Your task to perform on an android device: read, delete, or share a saved page in the chrome app Image 0: 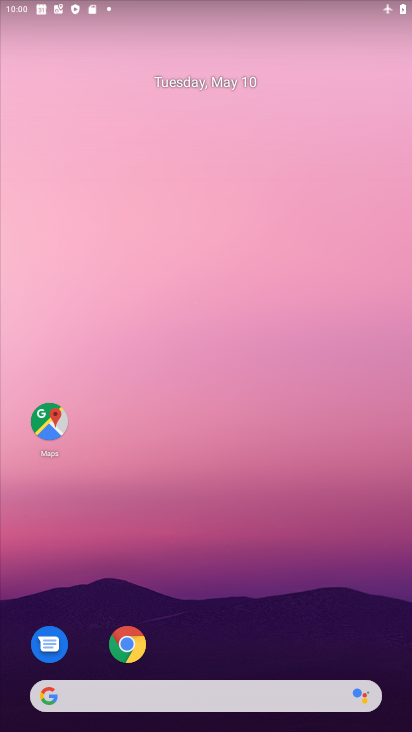
Step 0: drag from (284, 602) to (256, 226)
Your task to perform on an android device: read, delete, or share a saved page in the chrome app Image 1: 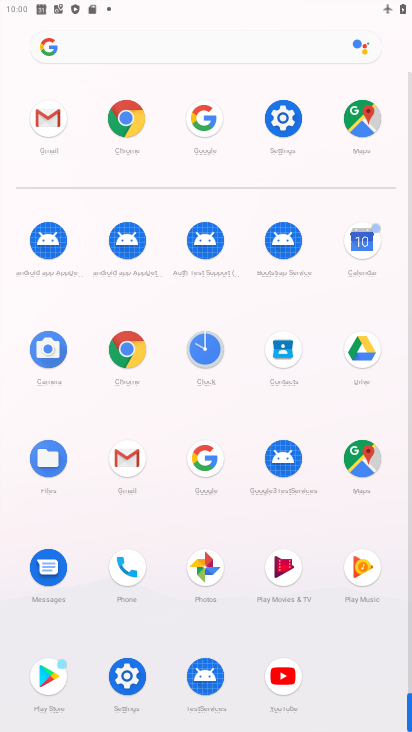
Step 1: click (128, 342)
Your task to perform on an android device: read, delete, or share a saved page in the chrome app Image 2: 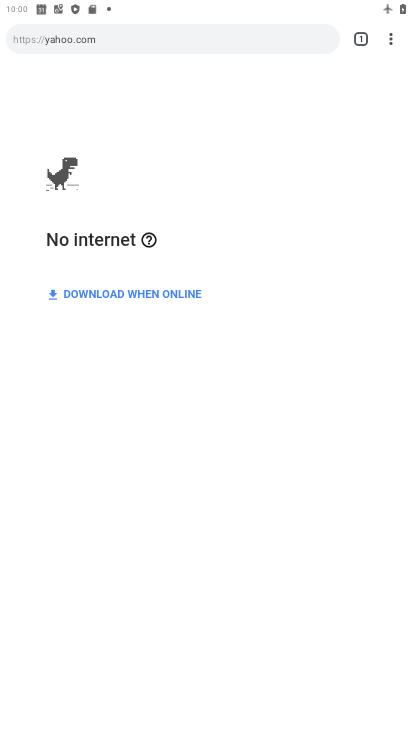
Step 2: click (391, 46)
Your task to perform on an android device: read, delete, or share a saved page in the chrome app Image 3: 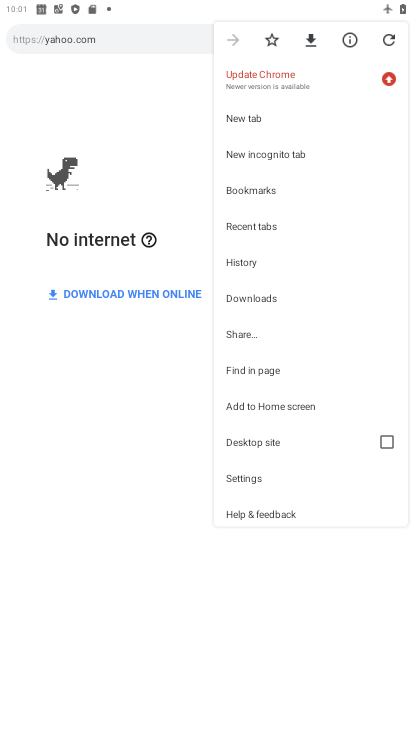
Step 3: click (277, 305)
Your task to perform on an android device: read, delete, or share a saved page in the chrome app Image 4: 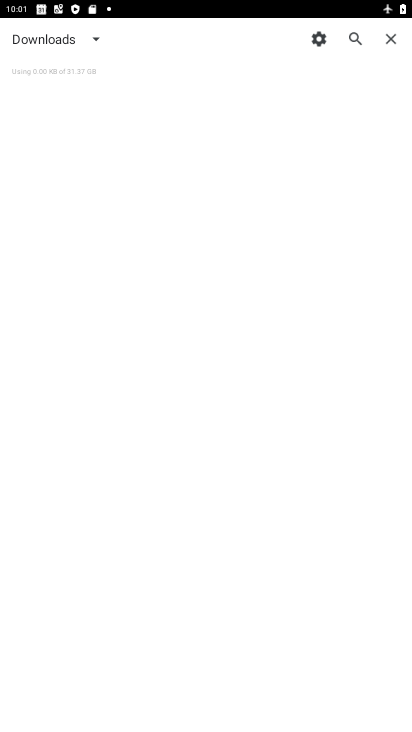
Step 4: click (77, 39)
Your task to perform on an android device: read, delete, or share a saved page in the chrome app Image 5: 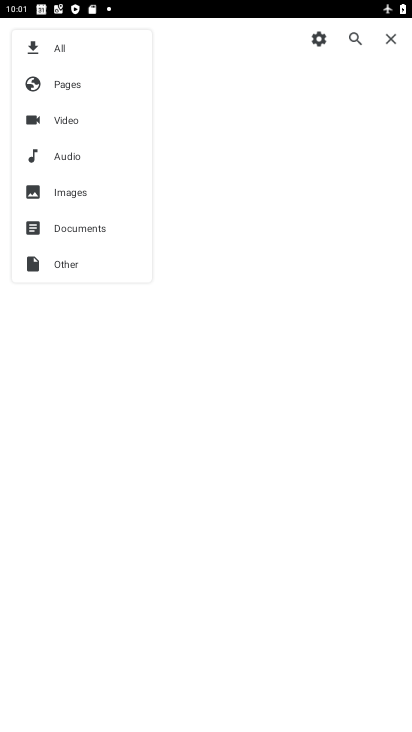
Step 5: click (77, 83)
Your task to perform on an android device: read, delete, or share a saved page in the chrome app Image 6: 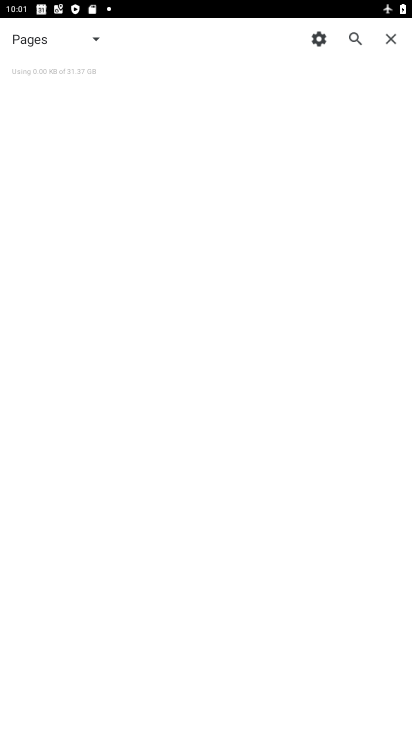
Step 6: task complete